Your task to perform on an android device: toggle notifications settings in the gmail app Image 0: 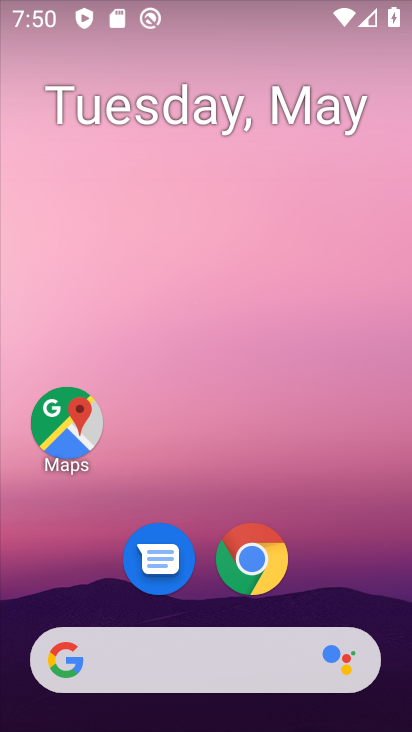
Step 0: click (230, 259)
Your task to perform on an android device: toggle notifications settings in the gmail app Image 1: 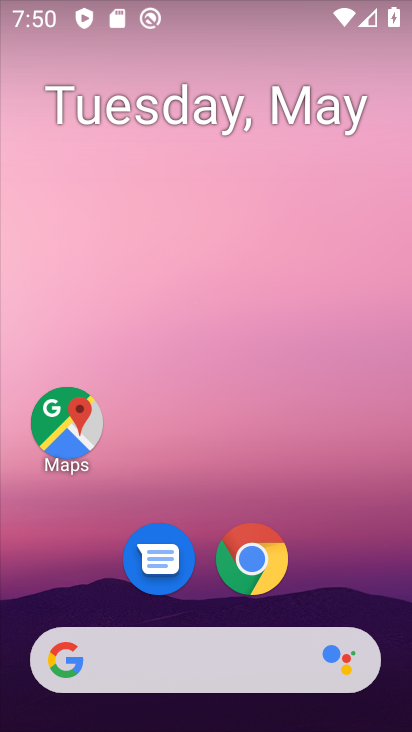
Step 1: drag from (304, 530) to (236, 249)
Your task to perform on an android device: toggle notifications settings in the gmail app Image 2: 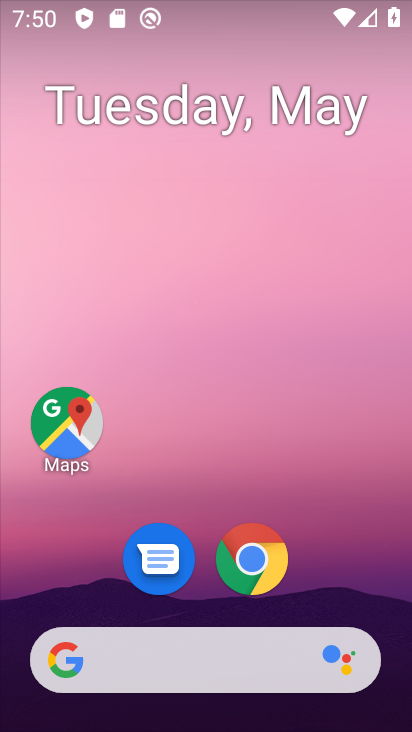
Step 2: click (8, 292)
Your task to perform on an android device: toggle notifications settings in the gmail app Image 3: 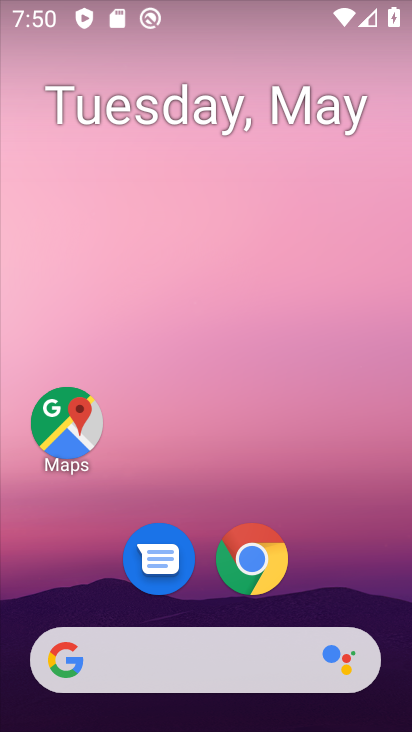
Step 3: drag from (314, 529) to (188, 157)
Your task to perform on an android device: toggle notifications settings in the gmail app Image 4: 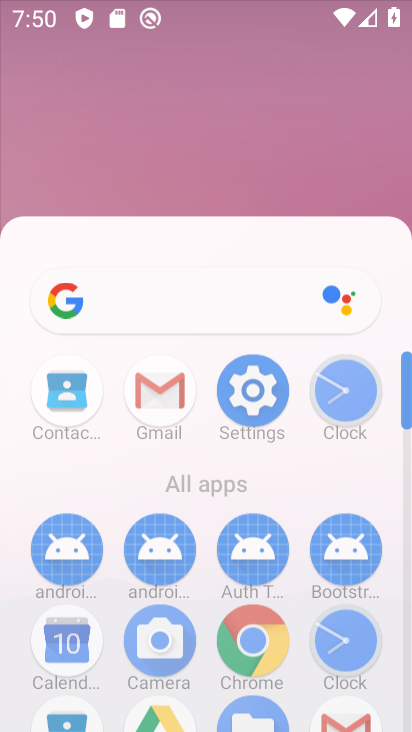
Step 4: drag from (107, 154) to (97, 119)
Your task to perform on an android device: toggle notifications settings in the gmail app Image 5: 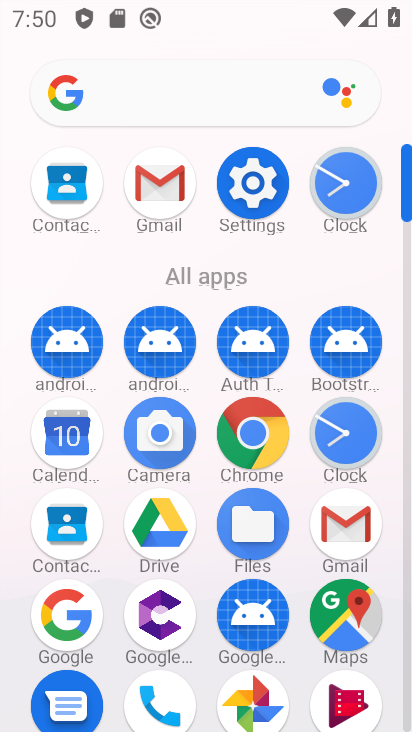
Step 5: click (333, 527)
Your task to perform on an android device: toggle notifications settings in the gmail app Image 6: 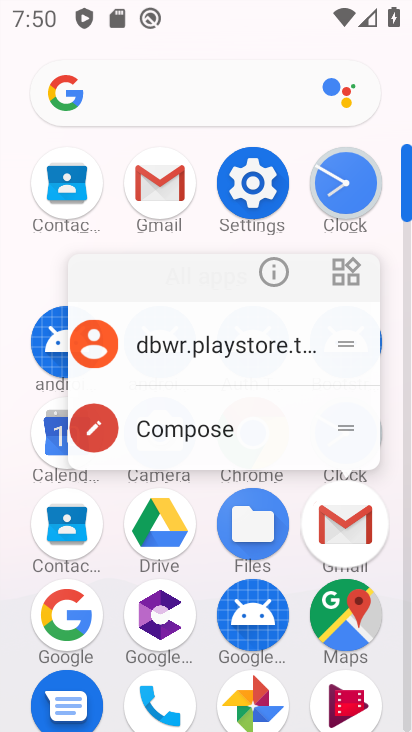
Step 6: click (332, 520)
Your task to perform on an android device: toggle notifications settings in the gmail app Image 7: 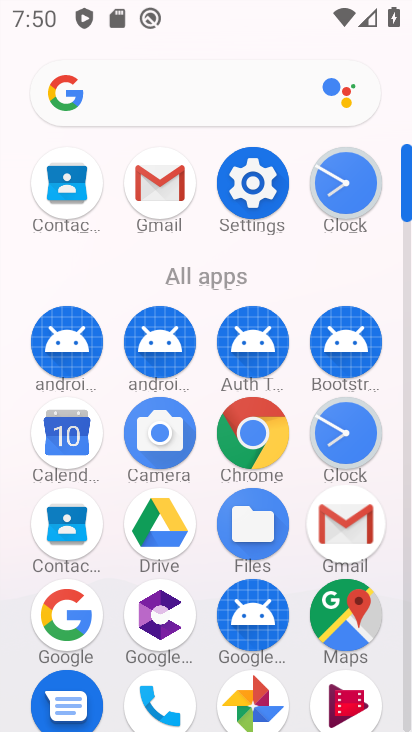
Step 7: click (332, 520)
Your task to perform on an android device: toggle notifications settings in the gmail app Image 8: 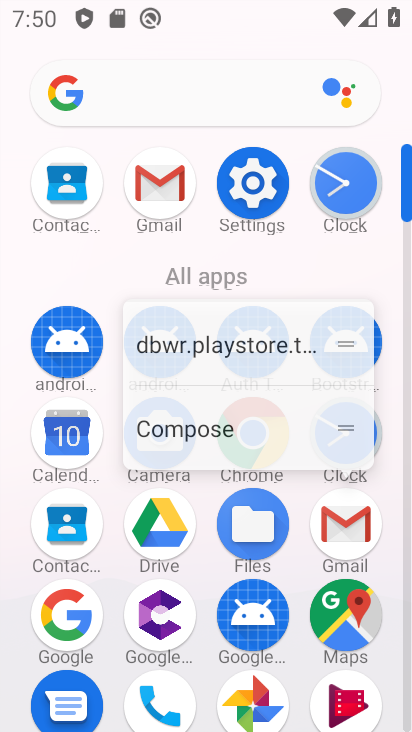
Step 8: click (331, 517)
Your task to perform on an android device: toggle notifications settings in the gmail app Image 9: 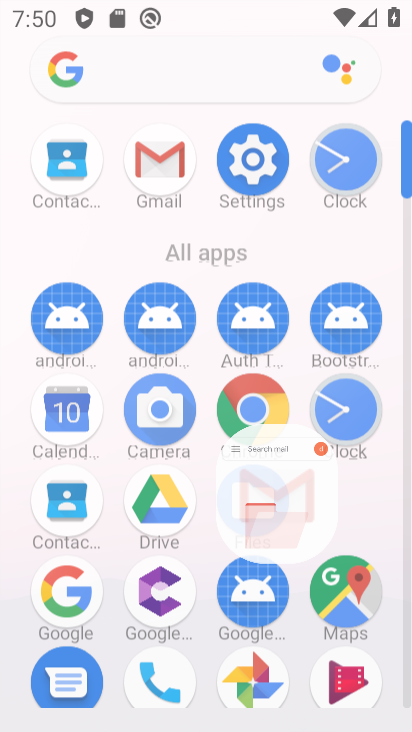
Step 9: click (337, 517)
Your task to perform on an android device: toggle notifications settings in the gmail app Image 10: 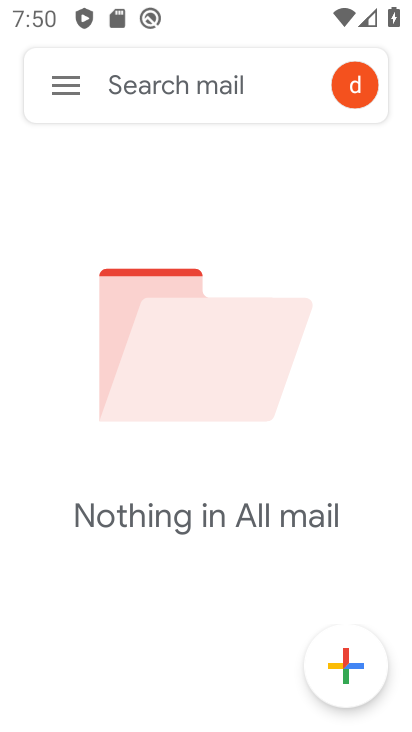
Step 10: click (342, 517)
Your task to perform on an android device: toggle notifications settings in the gmail app Image 11: 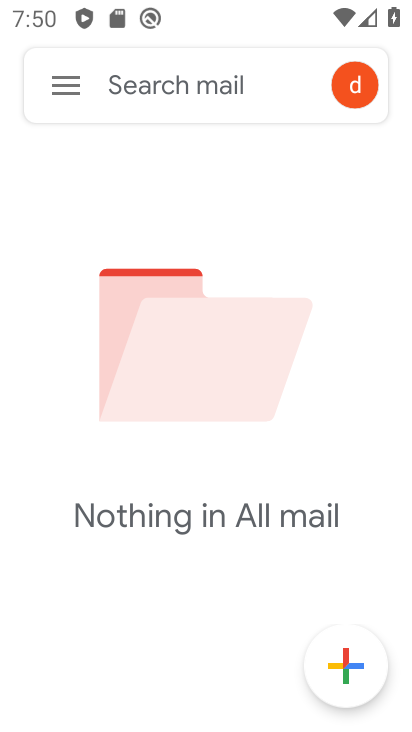
Step 11: click (70, 93)
Your task to perform on an android device: toggle notifications settings in the gmail app Image 12: 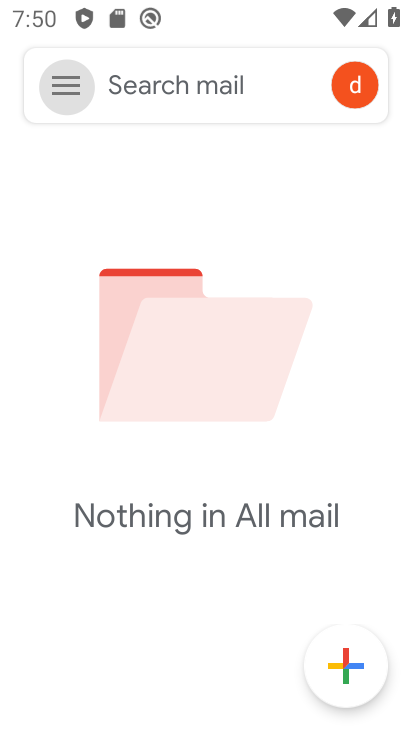
Step 12: click (70, 93)
Your task to perform on an android device: toggle notifications settings in the gmail app Image 13: 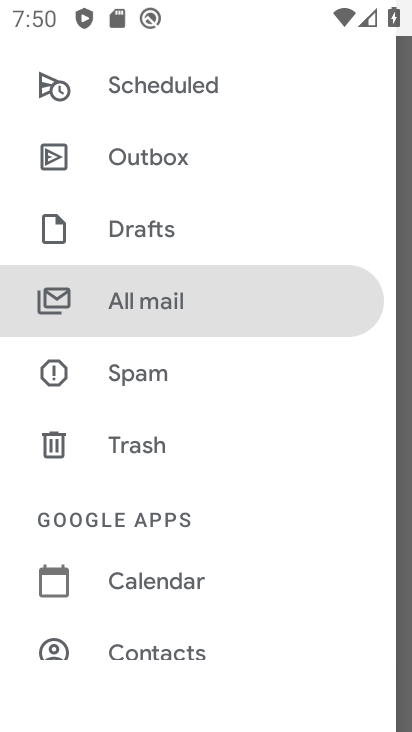
Step 13: drag from (164, 572) to (106, 247)
Your task to perform on an android device: toggle notifications settings in the gmail app Image 14: 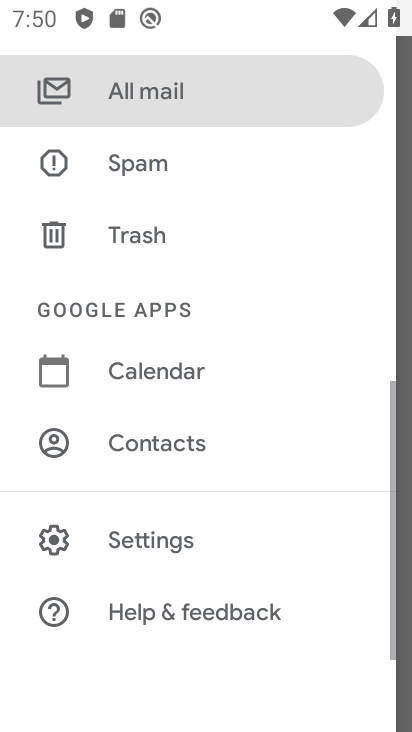
Step 14: drag from (110, 538) to (203, 73)
Your task to perform on an android device: toggle notifications settings in the gmail app Image 15: 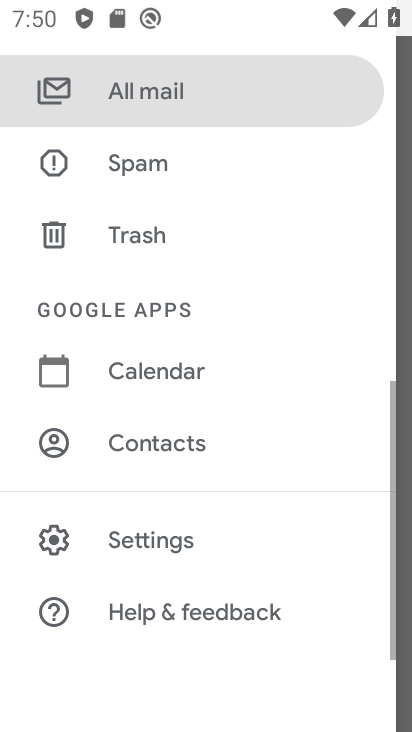
Step 15: click (161, 539)
Your task to perform on an android device: toggle notifications settings in the gmail app Image 16: 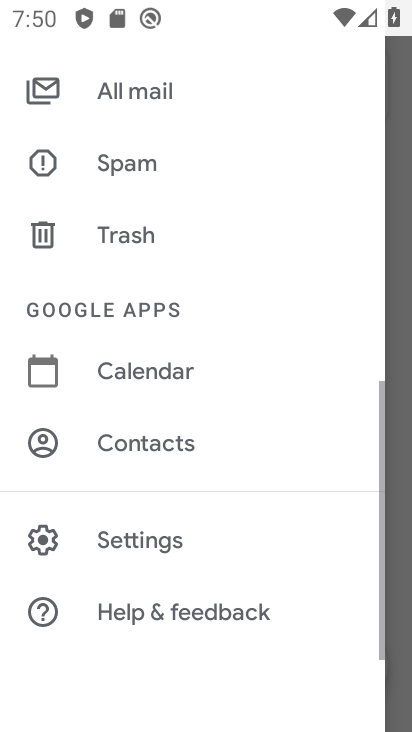
Step 16: click (157, 541)
Your task to perform on an android device: toggle notifications settings in the gmail app Image 17: 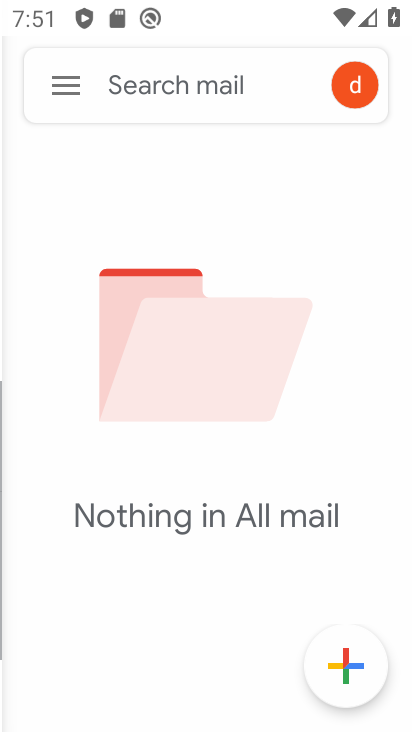
Step 17: click (157, 541)
Your task to perform on an android device: toggle notifications settings in the gmail app Image 18: 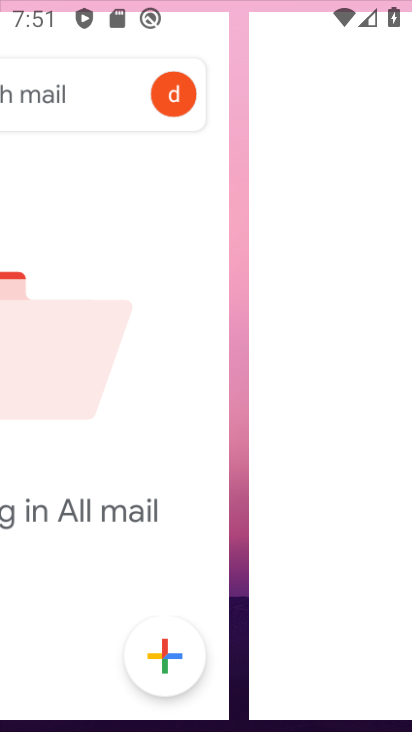
Step 18: click (156, 541)
Your task to perform on an android device: toggle notifications settings in the gmail app Image 19: 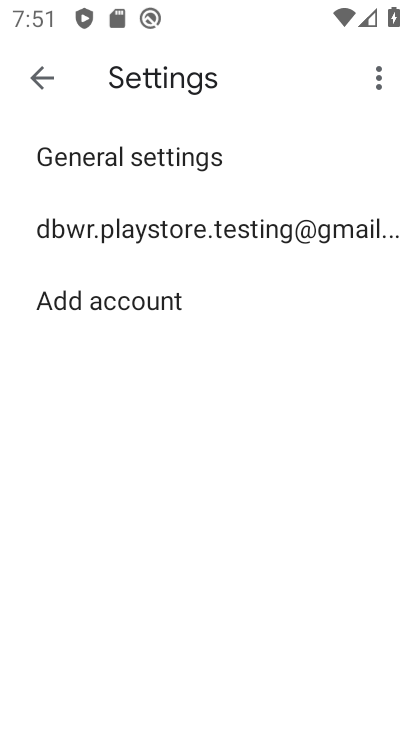
Step 19: click (161, 220)
Your task to perform on an android device: toggle notifications settings in the gmail app Image 20: 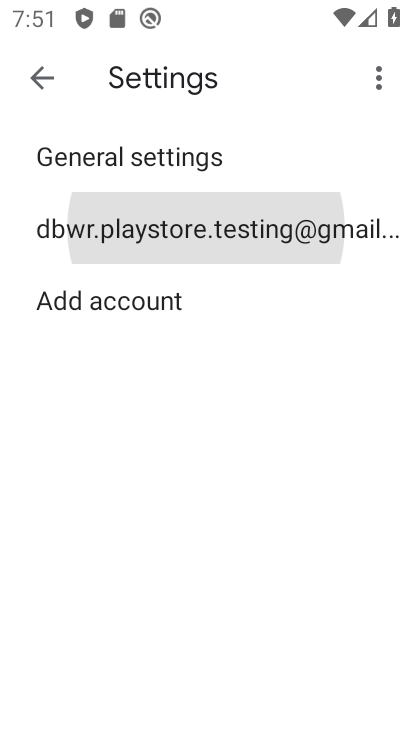
Step 20: click (162, 234)
Your task to perform on an android device: toggle notifications settings in the gmail app Image 21: 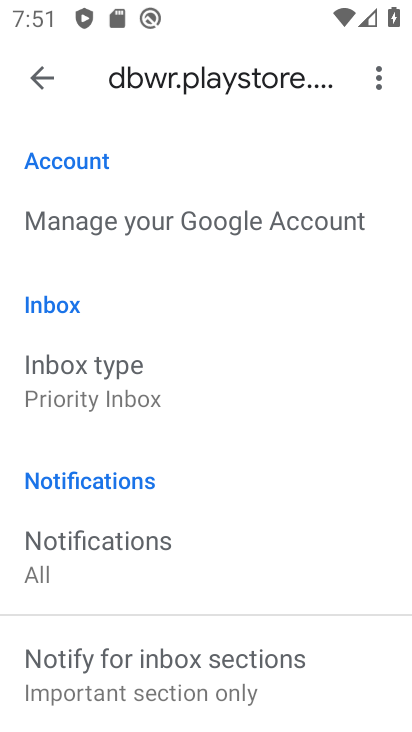
Step 21: click (114, 536)
Your task to perform on an android device: toggle notifications settings in the gmail app Image 22: 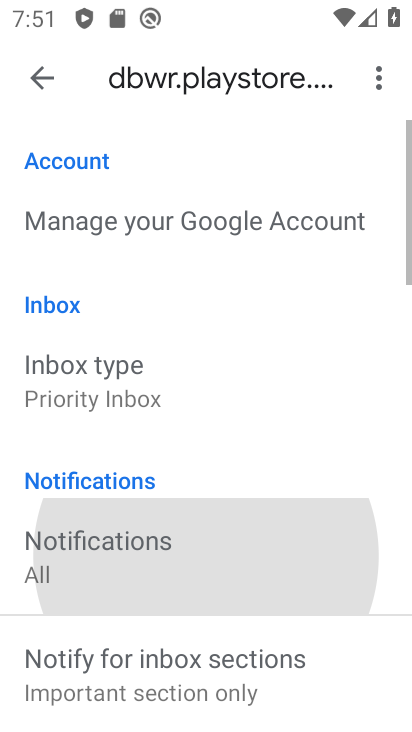
Step 22: click (114, 536)
Your task to perform on an android device: toggle notifications settings in the gmail app Image 23: 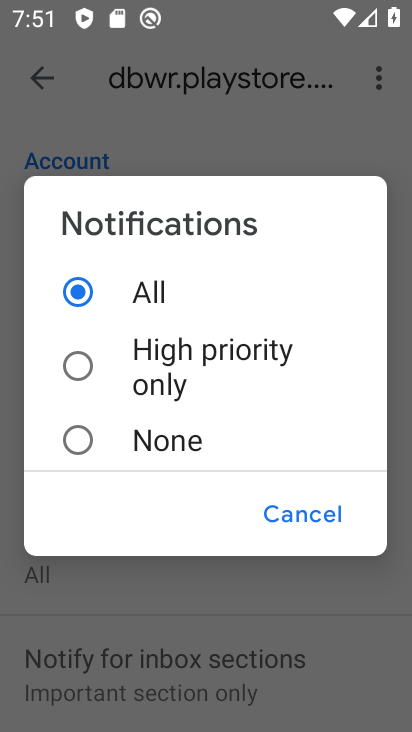
Step 23: click (73, 362)
Your task to perform on an android device: toggle notifications settings in the gmail app Image 24: 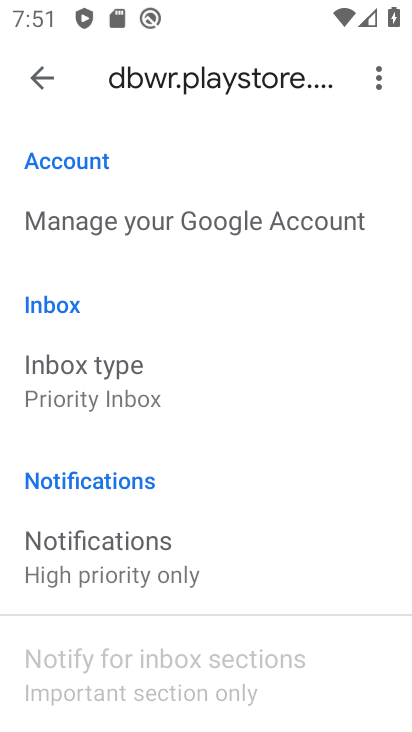
Step 24: task complete